Your task to perform on an android device: See recent photos Image 0: 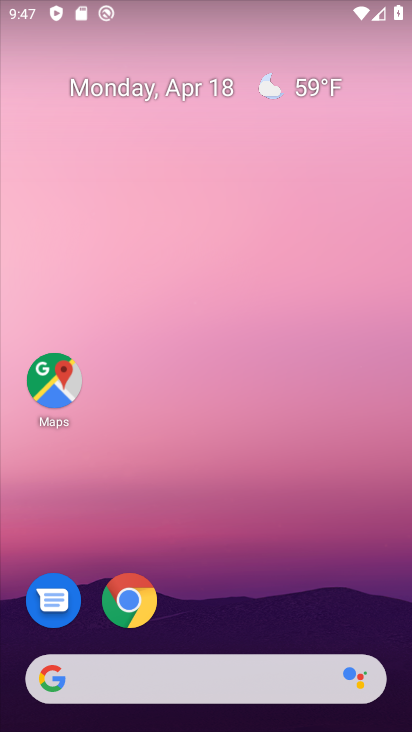
Step 0: drag from (264, 486) to (212, 1)
Your task to perform on an android device: See recent photos Image 1: 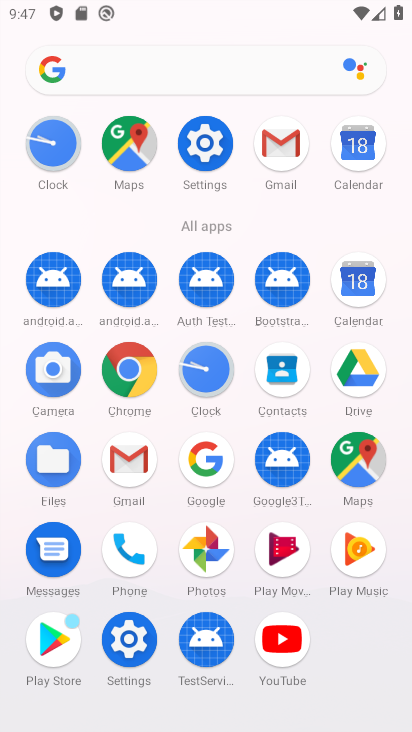
Step 1: click (212, 547)
Your task to perform on an android device: See recent photos Image 2: 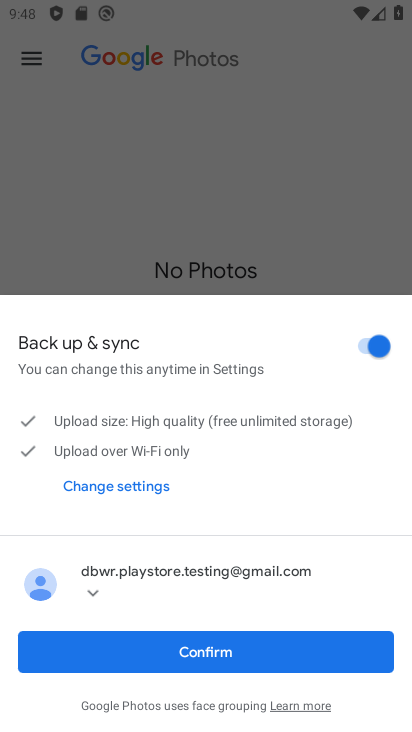
Step 2: click (189, 645)
Your task to perform on an android device: See recent photos Image 3: 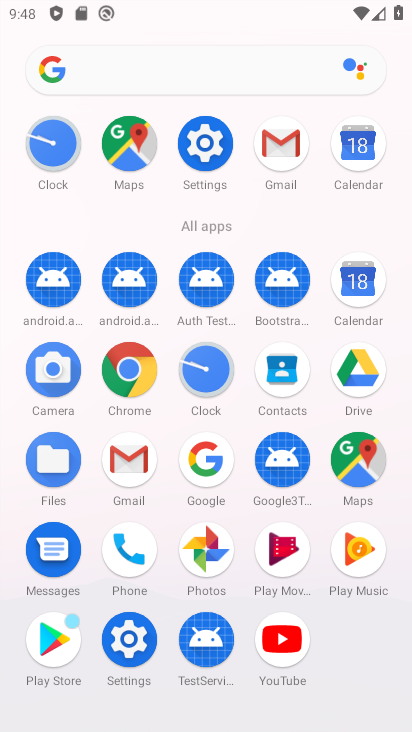
Step 3: click (198, 542)
Your task to perform on an android device: See recent photos Image 4: 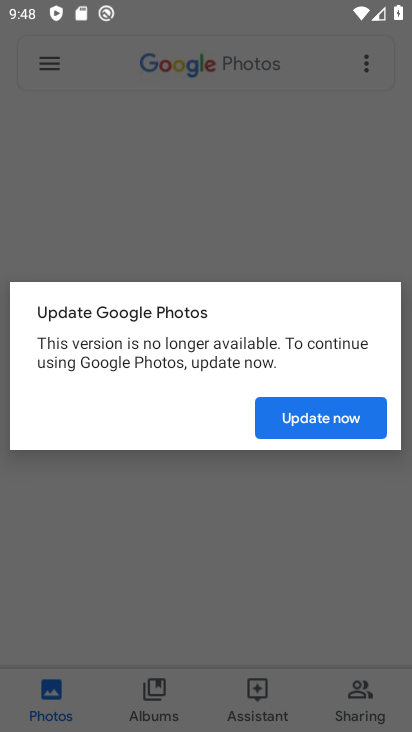
Step 4: click (290, 422)
Your task to perform on an android device: See recent photos Image 5: 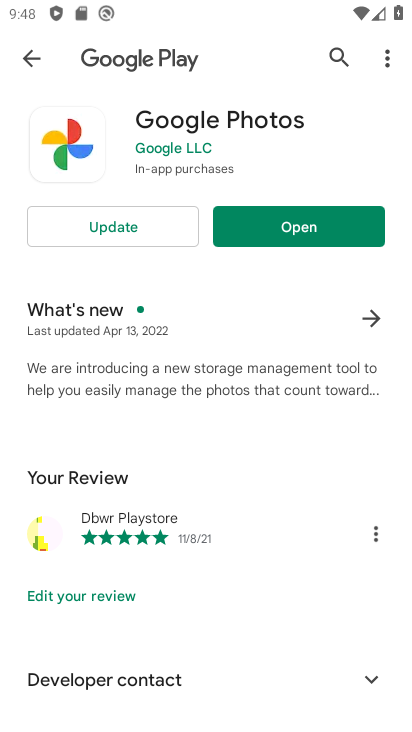
Step 5: click (136, 227)
Your task to perform on an android device: See recent photos Image 6: 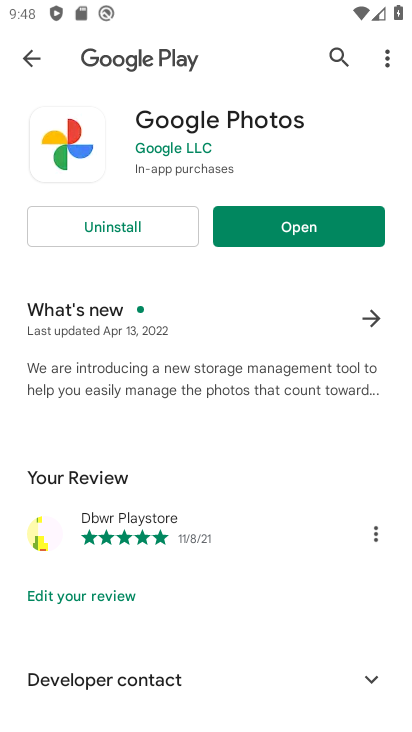
Step 6: click (261, 233)
Your task to perform on an android device: See recent photos Image 7: 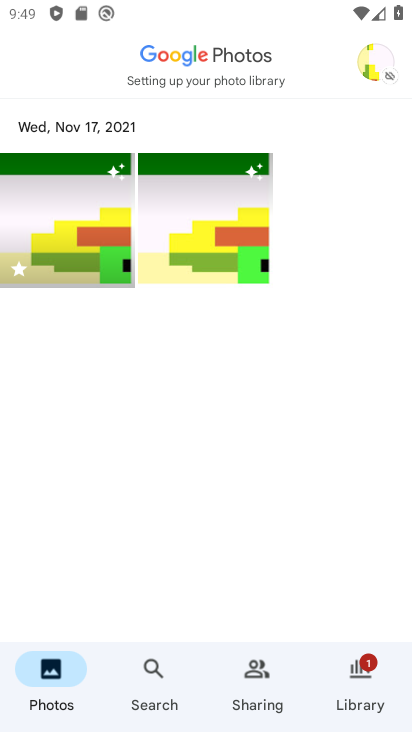
Step 7: task complete